Your task to perform on an android device: open chrome privacy settings Image 0: 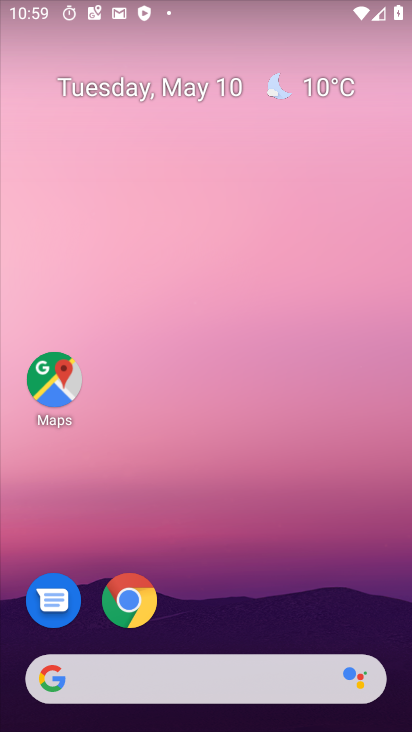
Step 0: drag from (266, 568) to (201, 17)
Your task to perform on an android device: open chrome privacy settings Image 1: 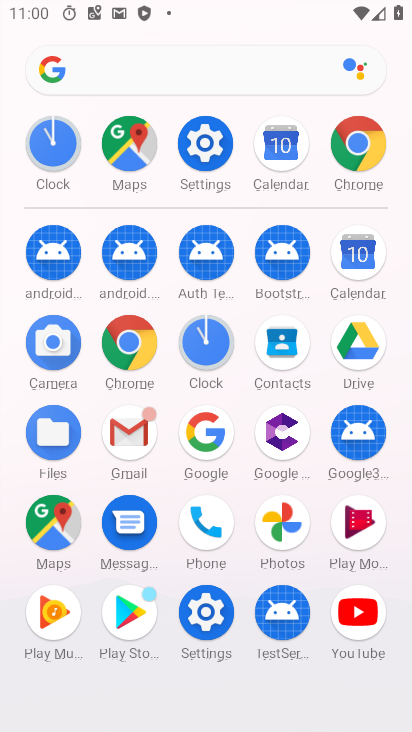
Step 1: drag from (9, 557) to (6, 199)
Your task to perform on an android device: open chrome privacy settings Image 2: 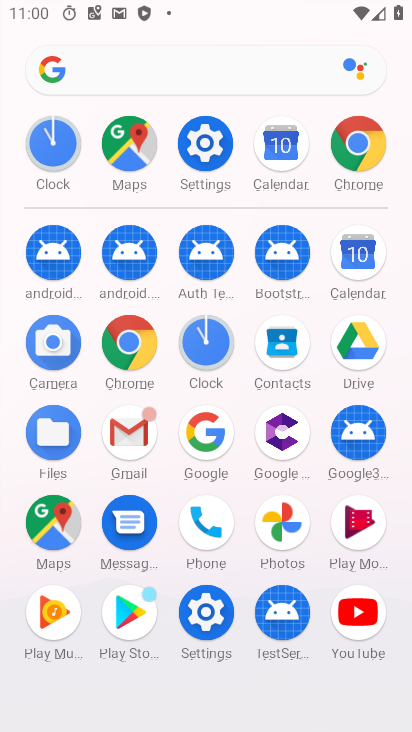
Step 2: click (128, 337)
Your task to perform on an android device: open chrome privacy settings Image 3: 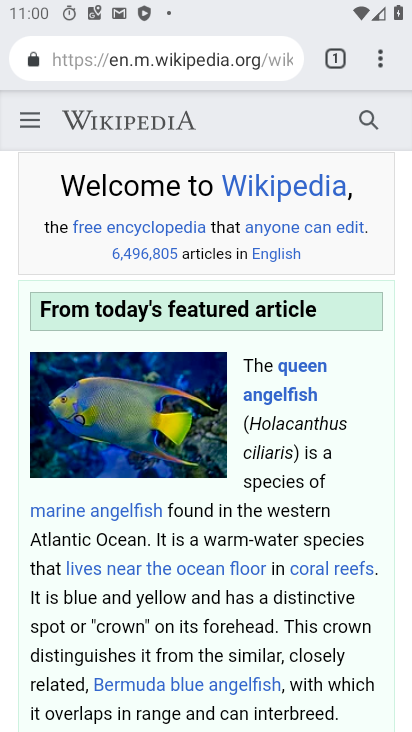
Step 3: drag from (382, 62) to (227, 626)
Your task to perform on an android device: open chrome privacy settings Image 4: 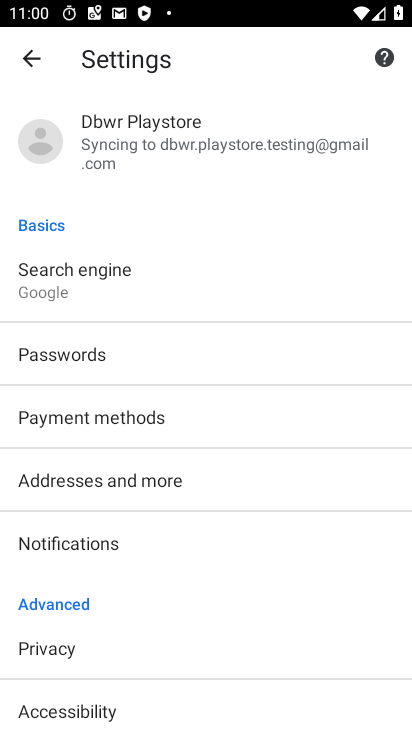
Step 4: click (79, 635)
Your task to perform on an android device: open chrome privacy settings Image 5: 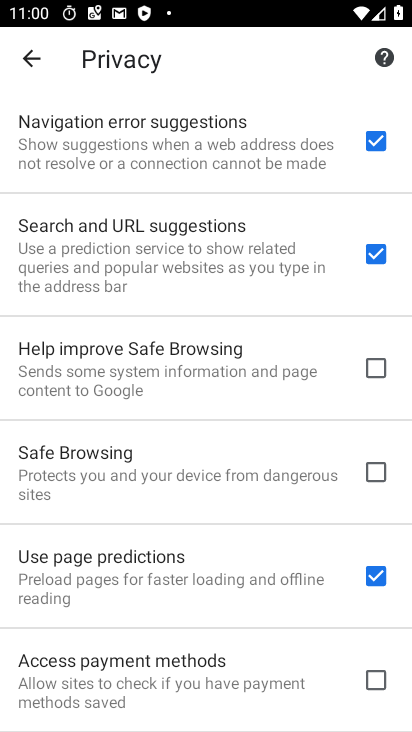
Step 5: task complete